Your task to perform on an android device: clear all cookies in the chrome app Image 0: 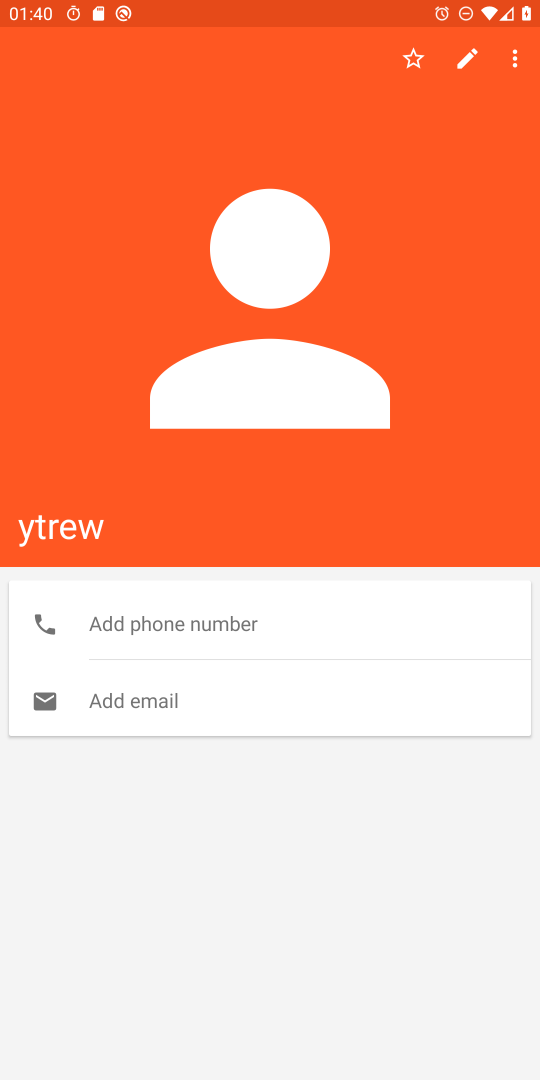
Step 0: press home button
Your task to perform on an android device: clear all cookies in the chrome app Image 1: 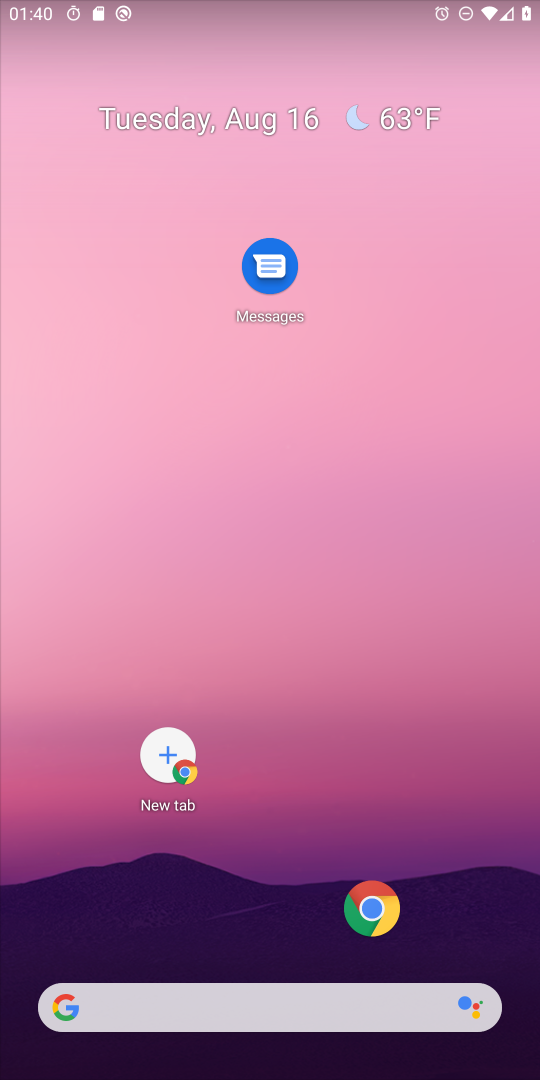
Step 1: click (371, 905)
Your task to perform on an android device: clear all cookies in the chrome app Image 2: 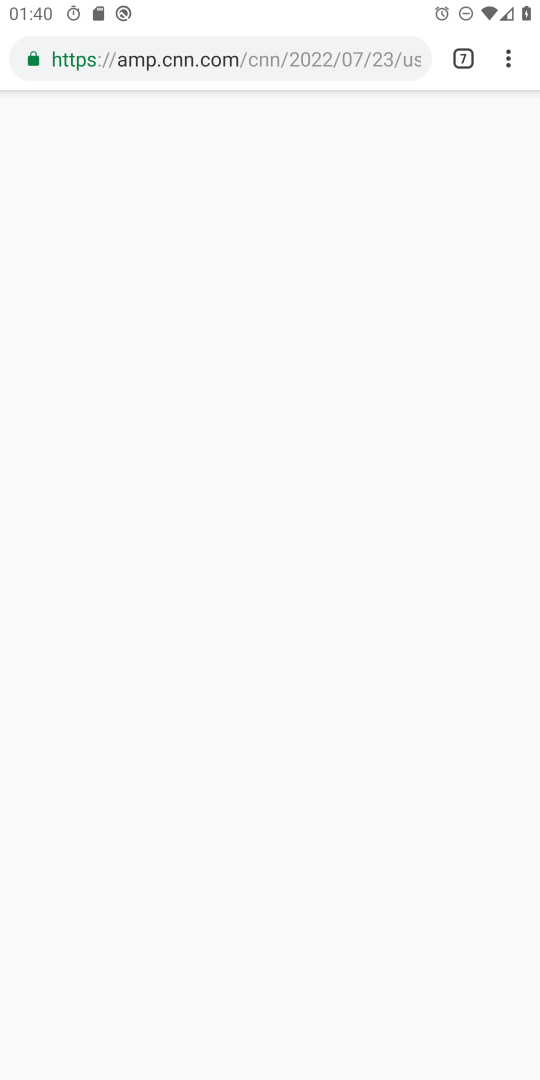
Step 2: click (509, 56)
Your task to perform on an android device: clear all cookies in the chrome app Image 3: 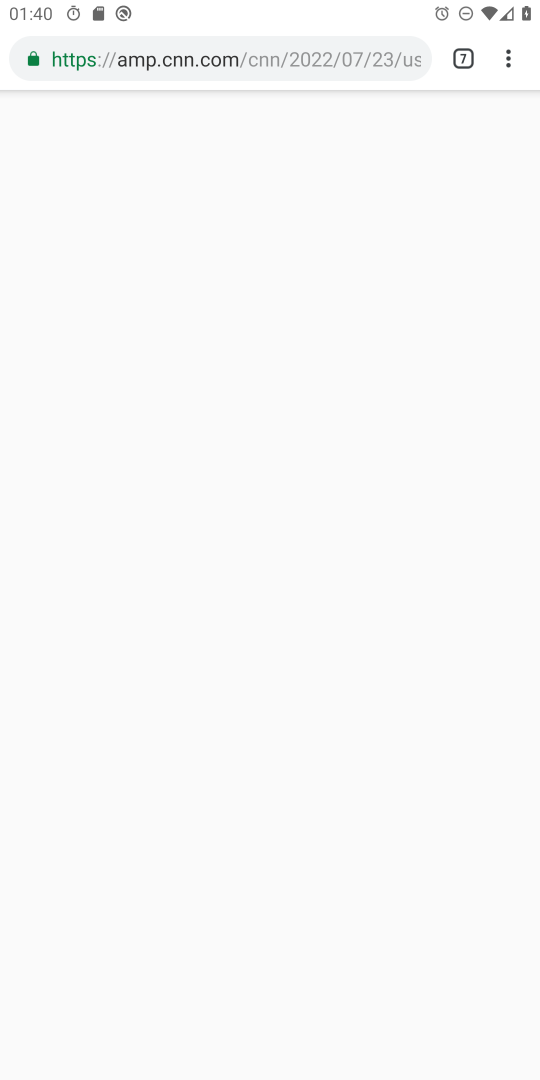
Step 3: click (509, 50)
Your task to perform on an android device: clear all cookies in the chrome app Image 4: 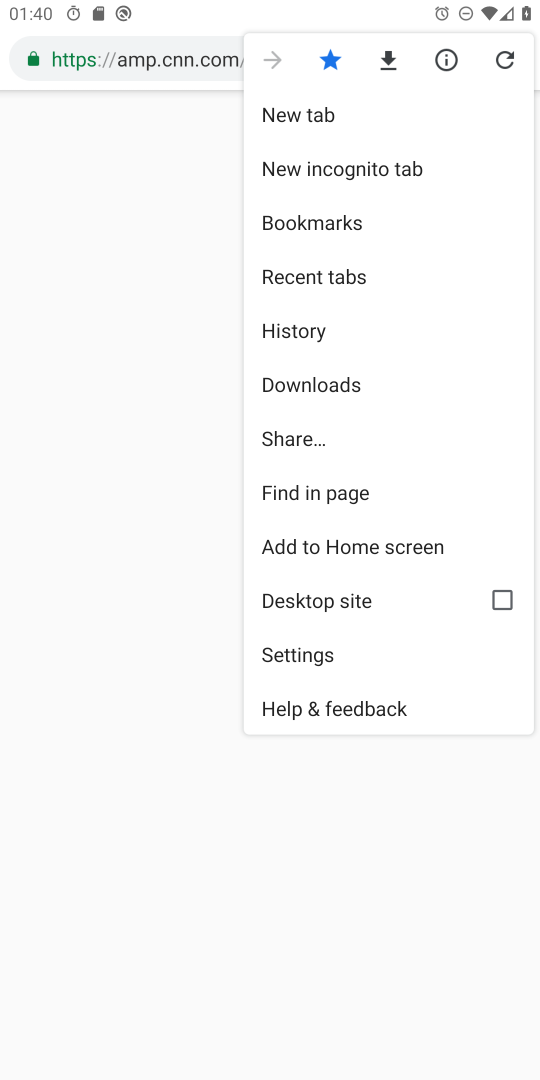
Step 4: click (325, 338)
Your task to perform on an android device: clear all cookies in the chrome app Image 5: 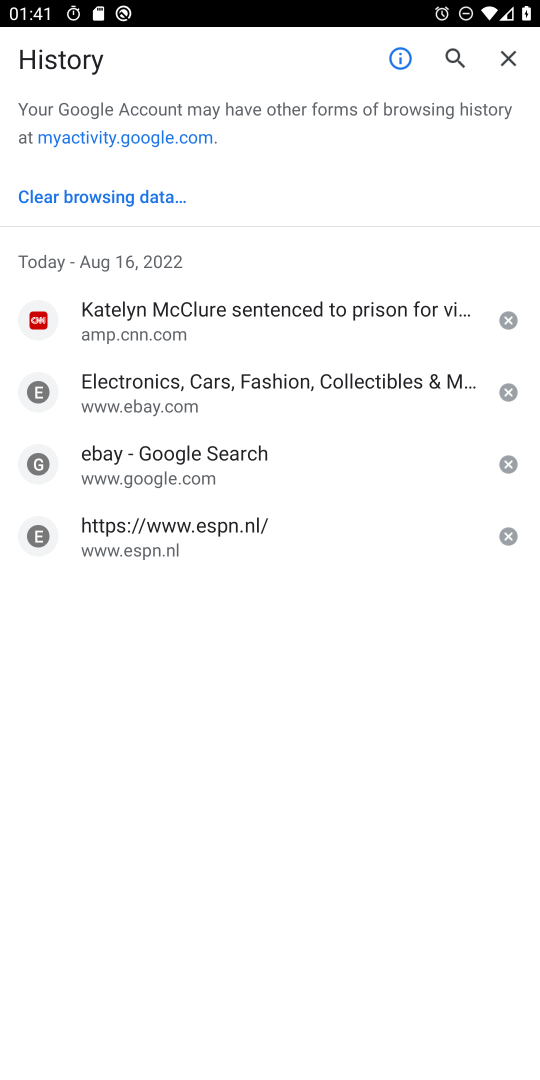
Step 5: click (74, 187)
Your task to perform on an android device: clear all cookies in the chrome app Image 6: 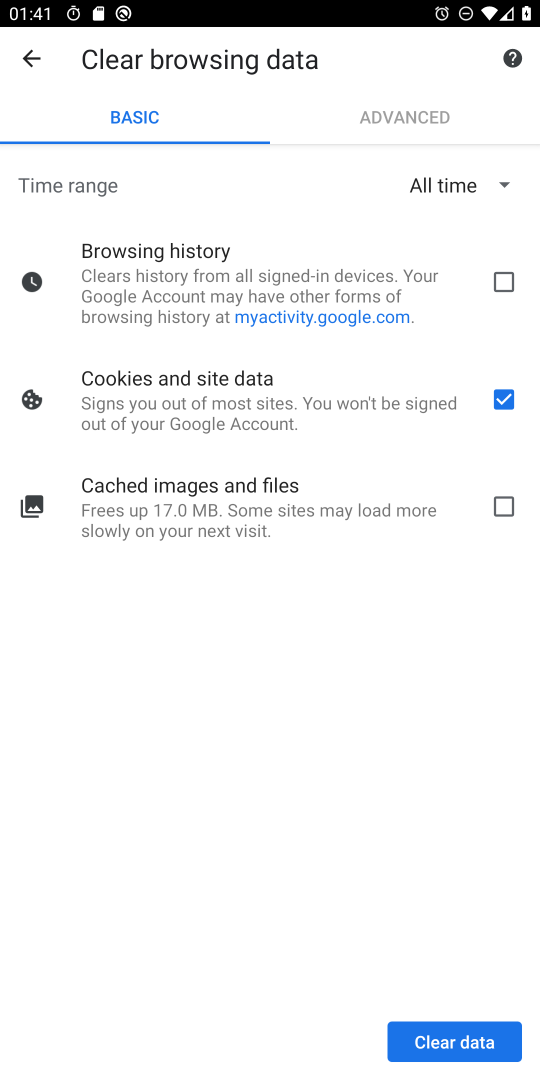
Step 6: click (463, 1032)
Your task to perform on an android device: clear all cookies in the chrome app Image 7: 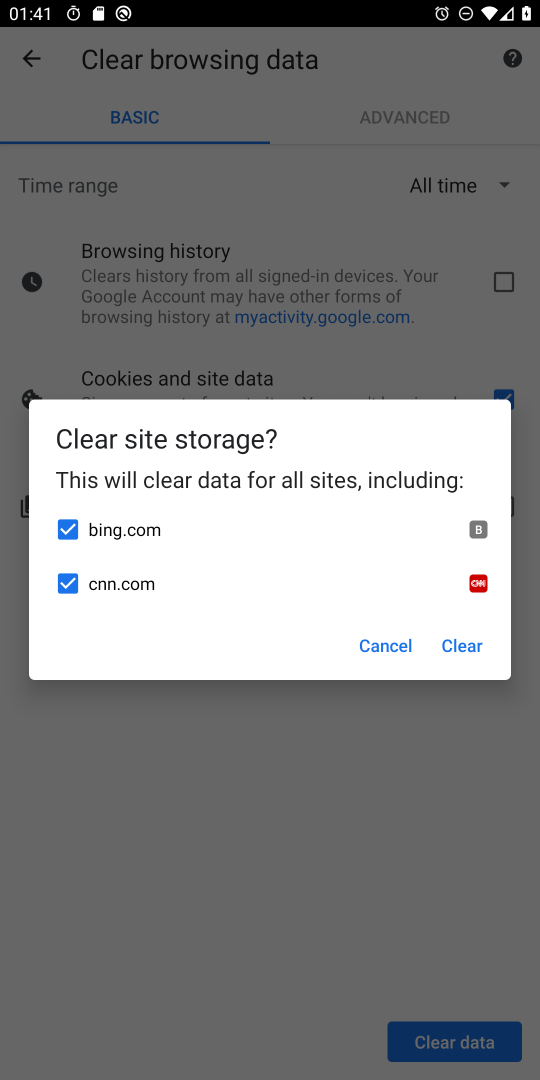
Step 7: click (456, 653)
Your task to perform on an android device: clear all cookies in the chrome app Image 8: 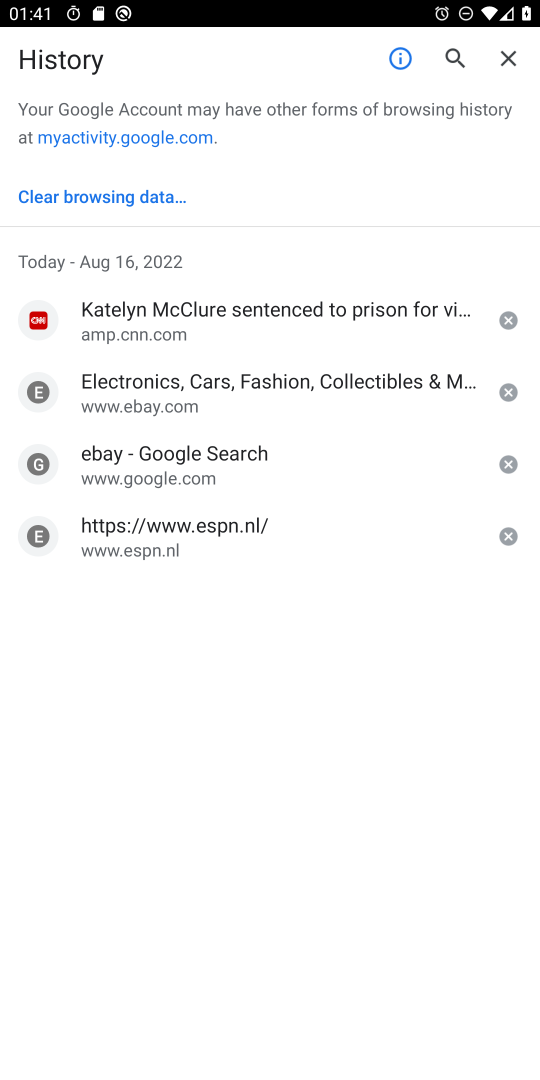
Step 8: task complete